Your task to perform on an android device: toggle airplane mode Image 0: 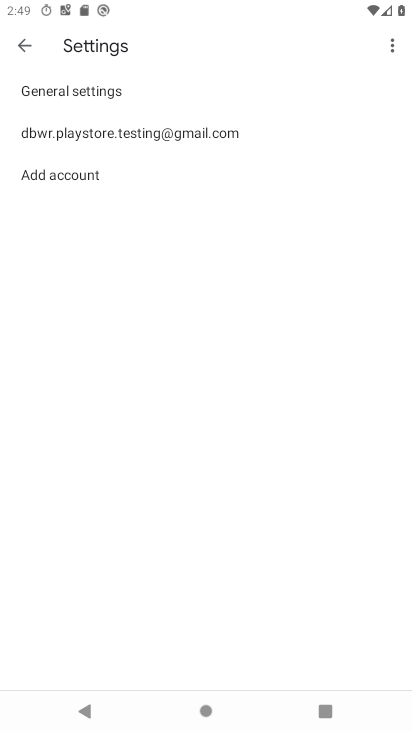
Step 0: press home button
Your task to perform on an android device: toggle airplane mode Image 1: 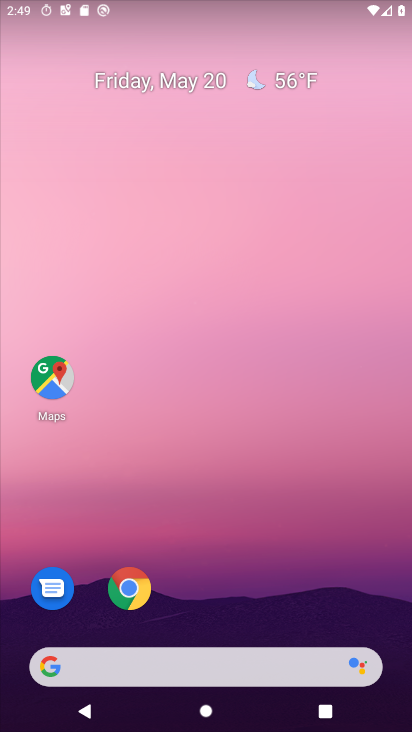
Step 1: drag from (290, 11) to (276, 531)
Your task to perform on an android device: toggle airplane mode Image 2: 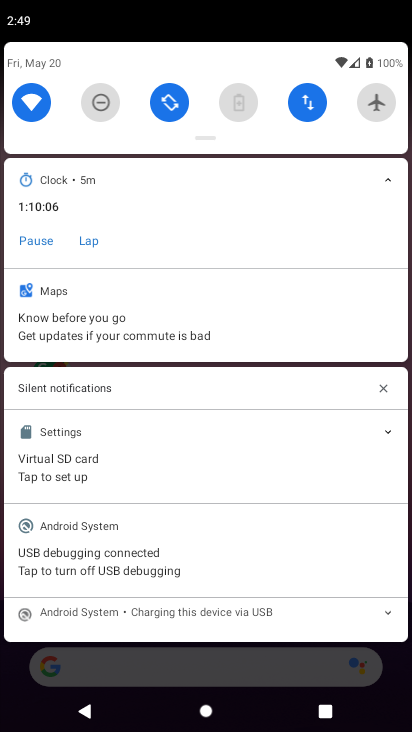
Step 2: click (372, 99)
Your task to perform on an android device: toggle airplane mode Image 3: 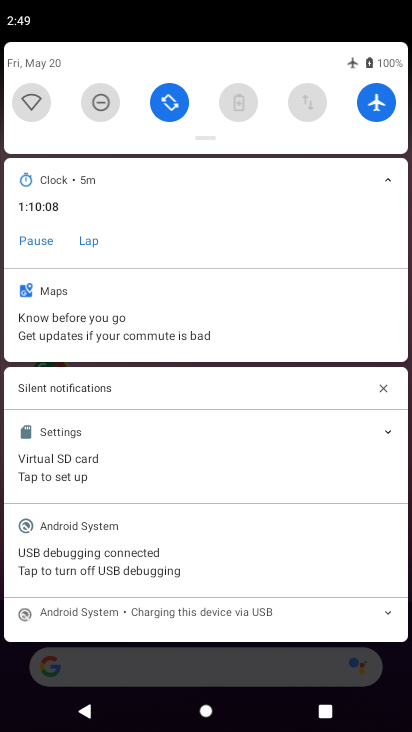
Step 3: task complete